Your task to perform on an android device: Open the calendar and show me this week's events? Image 0: 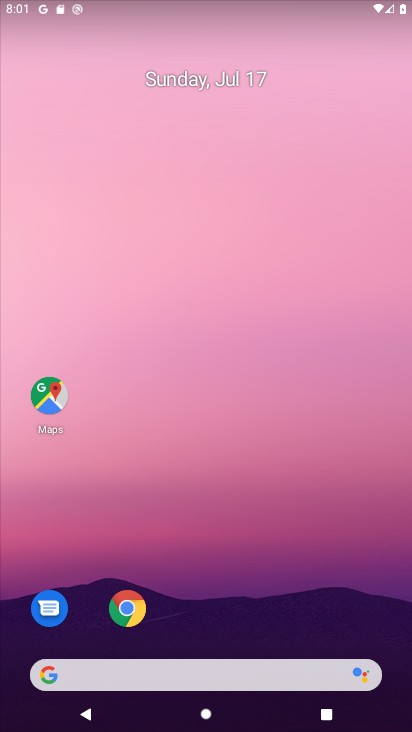
Step 0: drag from (198, 667) to (277, 280)
Your task to perform on an android device: Open the calendar and show me this week's events? Image 1: 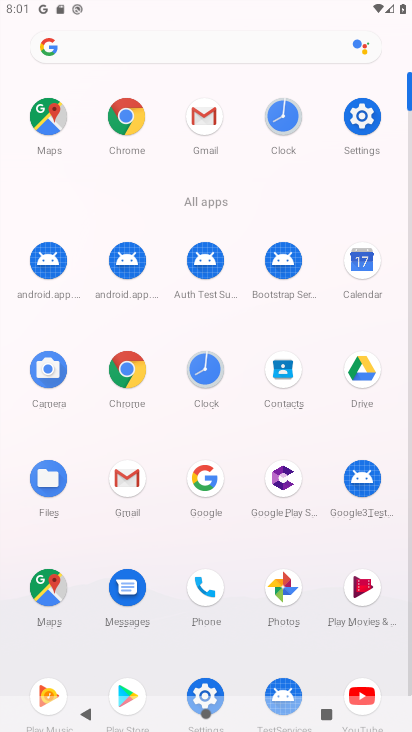
Step 1: click (350, 261)
Your task to perform on an android device: Open the calendar and show me this week's events? Image 2: 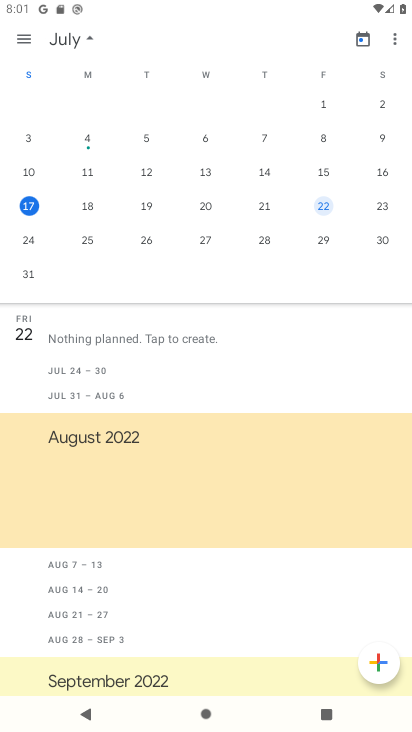
Step 2: click (147, 209)
Your task to perform on an android device: Open the calendar and show me this week's events? Image 3: 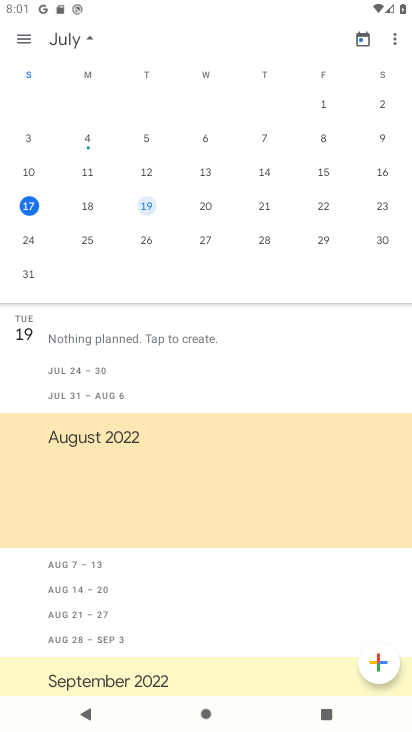
Step 3: click (86, 207)
Your task to perform on an android device: Open the calendar and show me this week's events? Image 4: 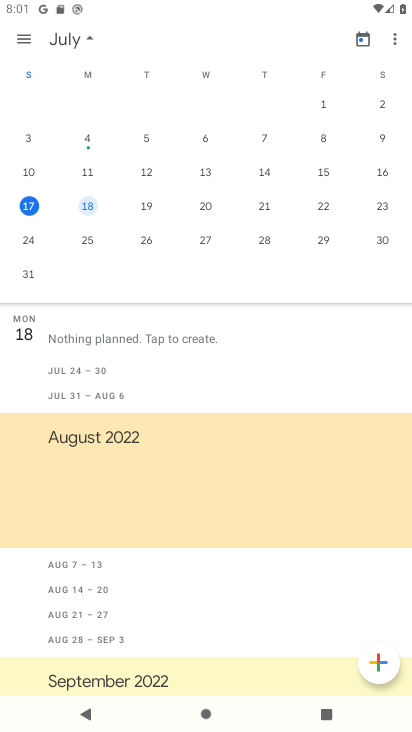
Step 4: click (271, 202)
Your task to perform on an android device: Open the calendar and show me this week's events? Image 5: 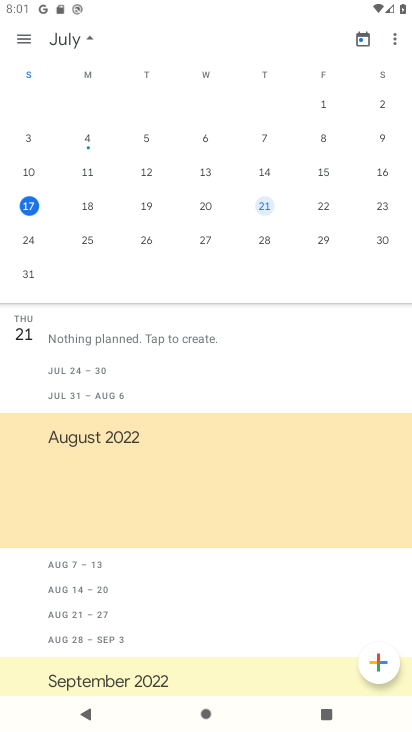
Step 5: click (200, 200)
Your task to perform on an android device: Open the calendar and show me this week's events? Image 6: 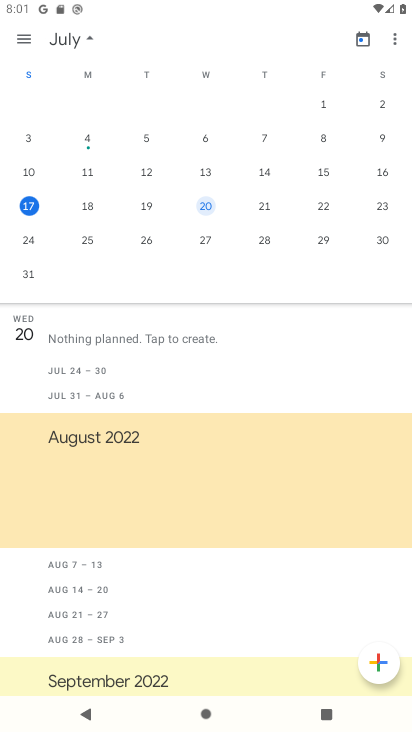
Step 6: task complete